Your task to perform on an android device: turn off priority inbox in the gmail app Image 0: 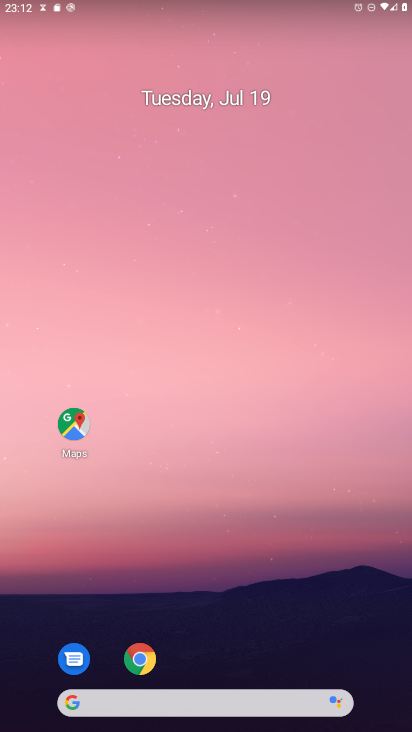
Step 0: drag from (284, 637) to (285, 185)
Your task to perform on an android device: turn off priority inbox in the gmail app Image 1: 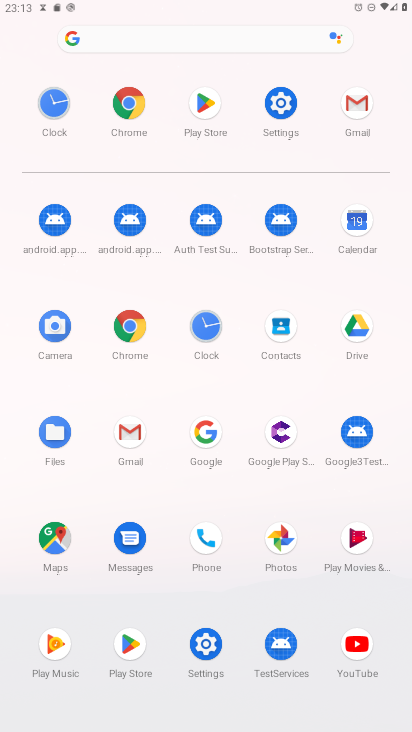
Step 1: click (355, 109)
Your task to perform on an android device: turn off priority inbox in the gmail app Image 2: 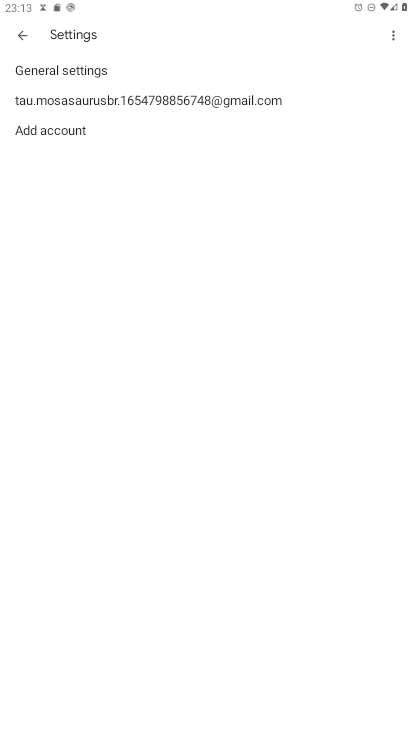
Step 2: click (48, 99)
Your task to perform on an android device: turn off priority inbox in the gmail app Image 3: 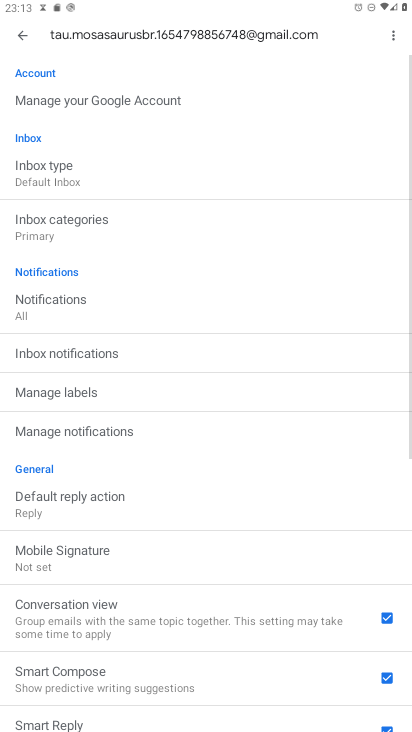
Step 3: click (75, 160)
Your task to perform on an android device: turn off priority inbox in the gmail app Image 4: 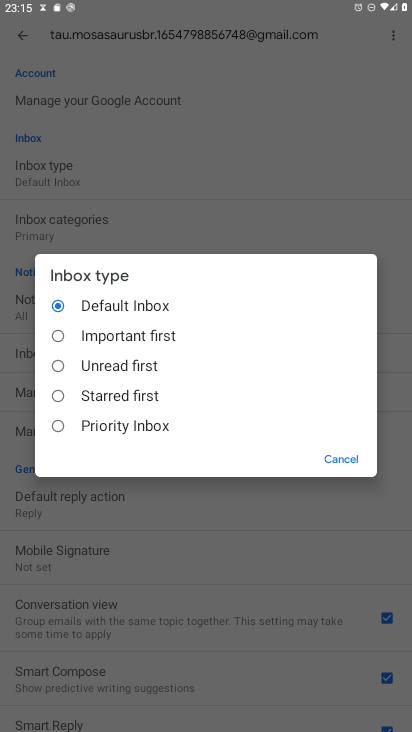
Step 4: task complete